Your task to perform on an android device: Open the web browser Image 0: 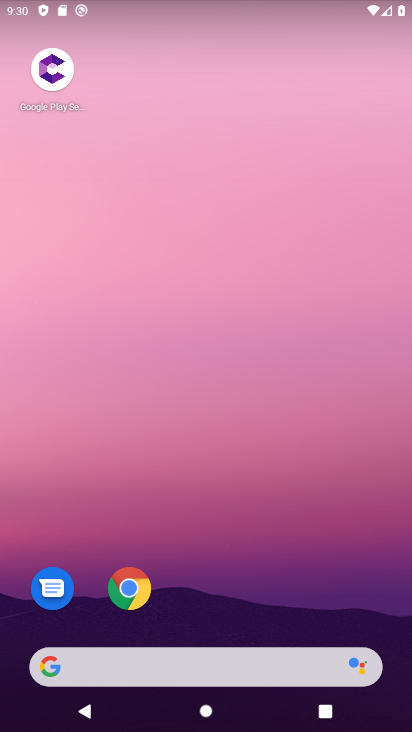
Step 0: drag from (353, 602) to (284, 45)
Your task to perform on an android device: Open the web browser Image 1: 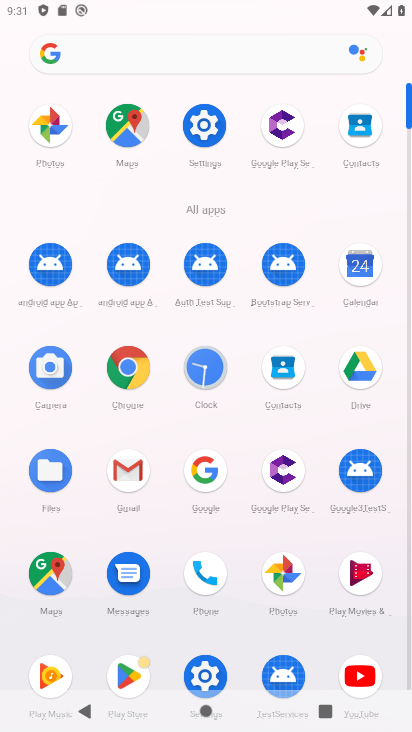
Step 1: click (136, 377)
Your task to perform on an android device: Open the web browser Image 2: 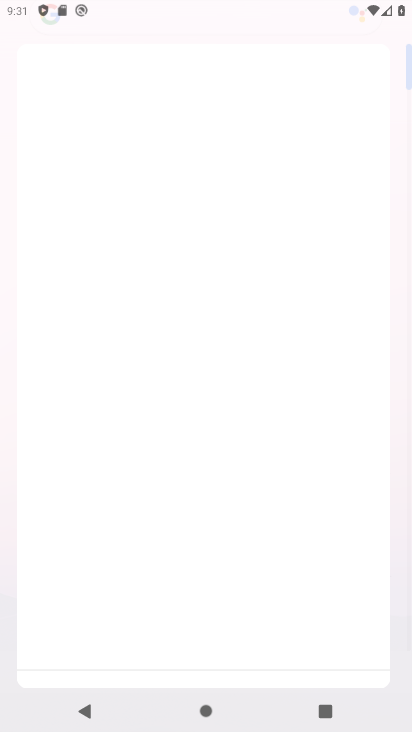
Step 2: click (136, 364)
Your task to perform on an android device: Open the web browser Image 3: 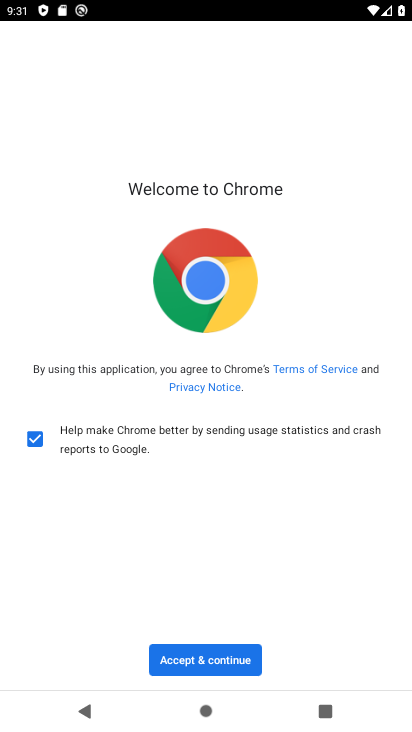
Step 3: click (217, 652)
Your task to perform on an android device: Open the web browser Image 4: 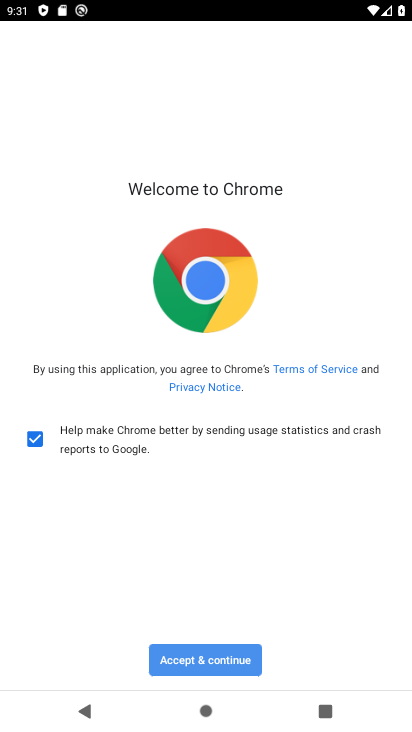
Step 4: click (218, 652)
Your task to perform on an android device: Open the web browser Image 5: 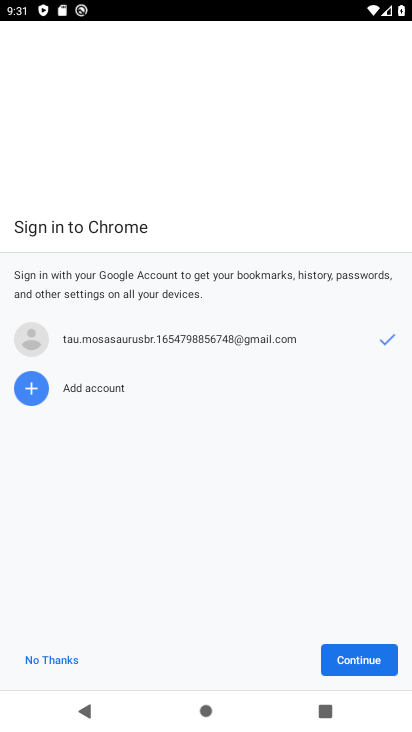
Step 5: click (238, 654)
Your task to perform on an android device: Open the web browser Image 6: 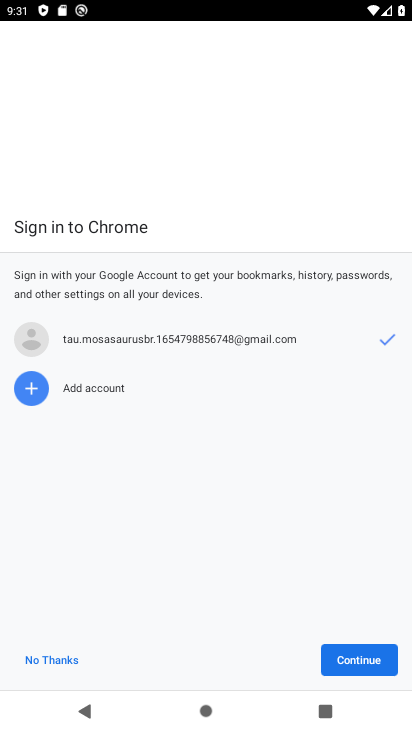
Step 6: click (261, 635)
Your task to perform on an android device: Open the web browser Image 7: 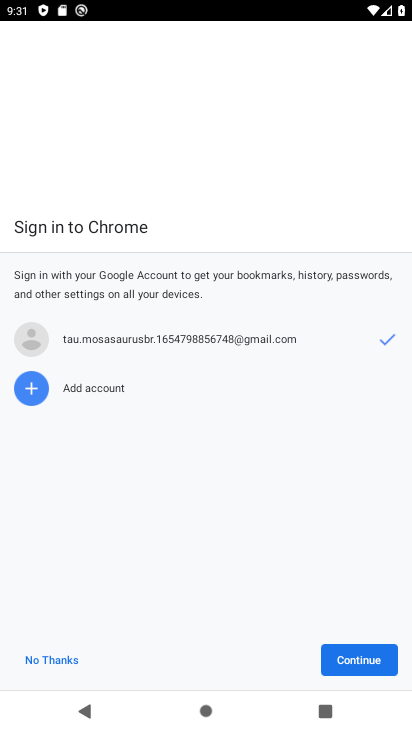
Step 7: click (58, 660)
Your task to perform on an android device: Open the web browser Image 8: 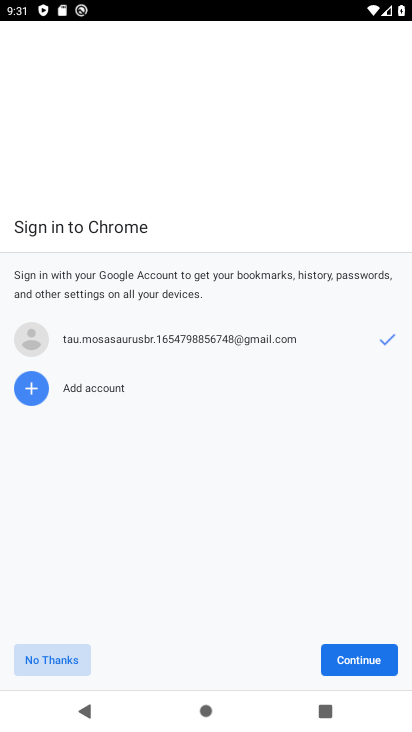
Step 8: click (47, 651)
Your task to perform on an android device: Open the web browser Image 9: 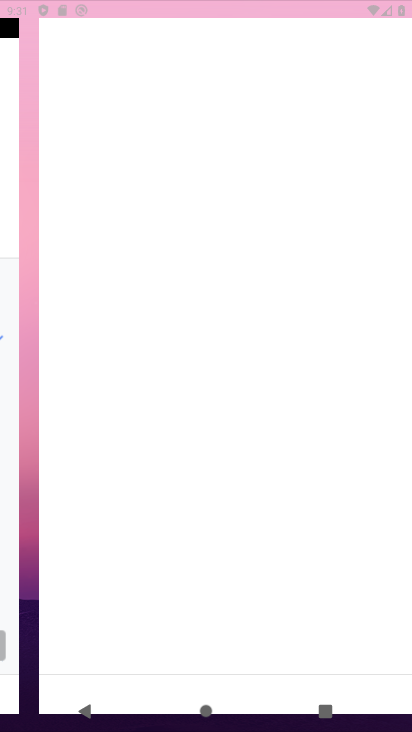
Step 9: click (41, 642)
Your task to perform on an android device: Open the web browser Image 10: 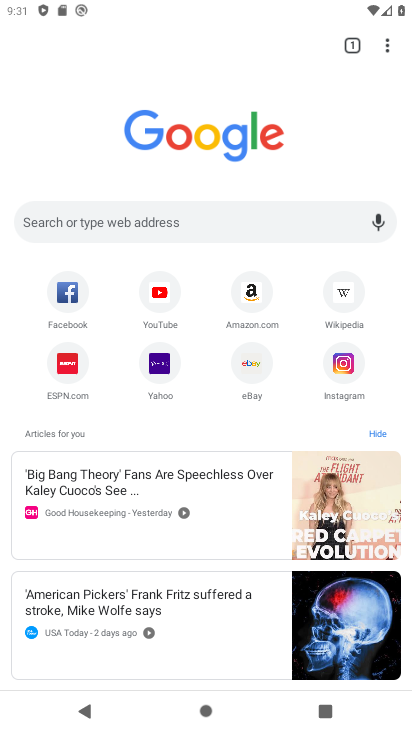
Step 10: click (190, 225)
Your task to perform on an android device: Open the web browser Image 11: 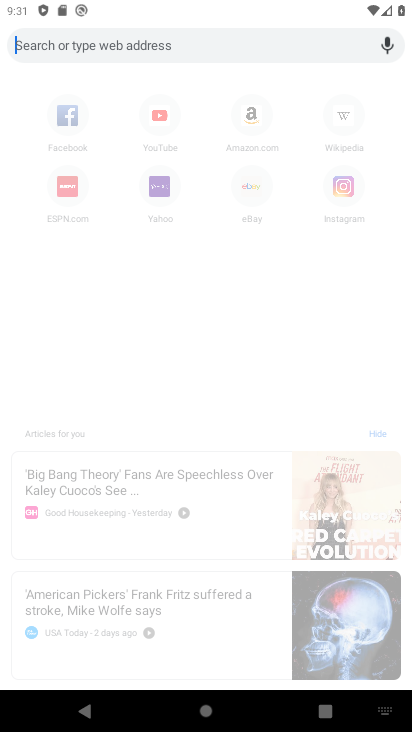
Step 11: task complete